Your task to perform on an android device: visit the assistant section in the google photos Image 0: 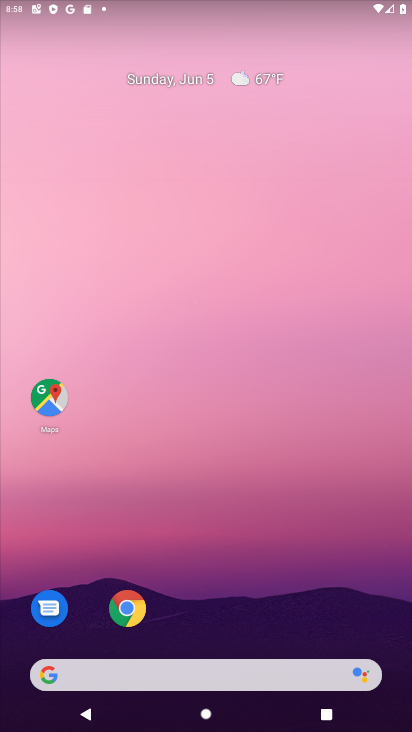
Step 0: drag from (10, 628) to (127, 387)
Your task to perform on an android device: visit the assistant section in the google photos Image 1: 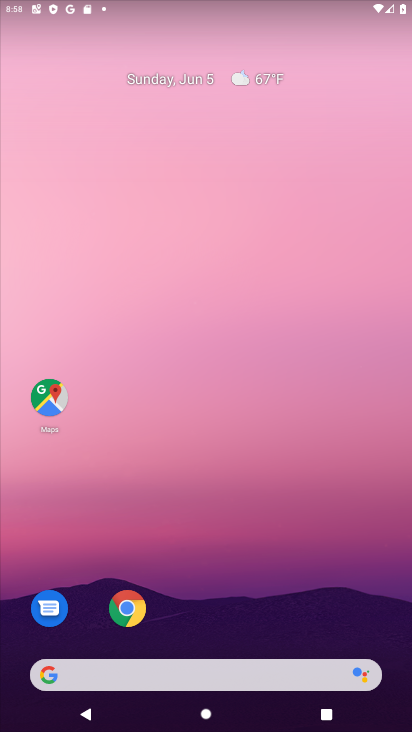
Step 1: drag from (24, 554) to (221, 213)
Your task to perform on an android device: visit the assistant section in the google photos Image 2: 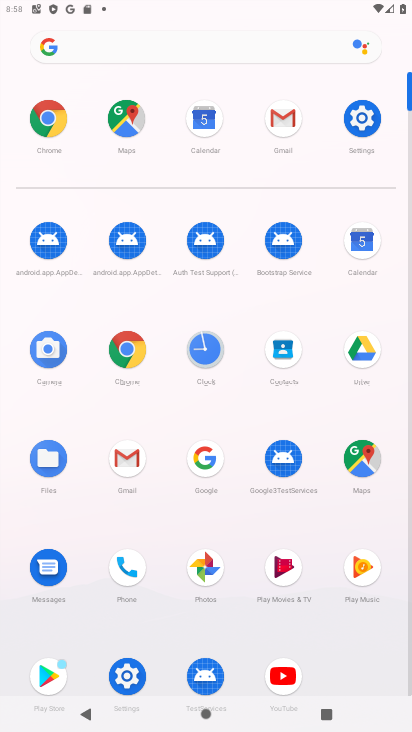
Step 2: click (216, 566)
Your task to perform on an android device: visit the assistant section in the google photos Image 3: 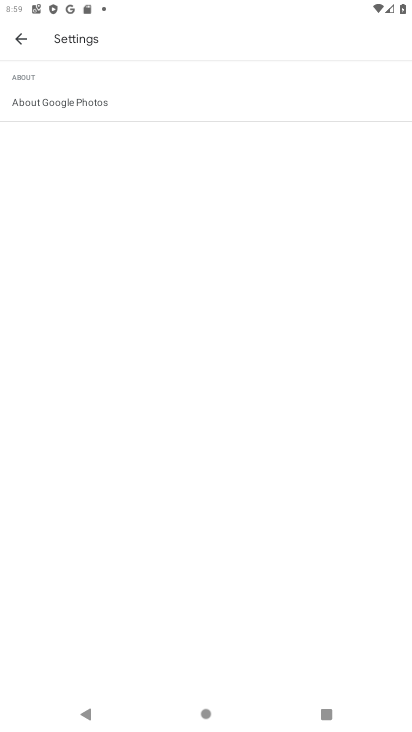
Step 3: click (20, 34)
Your task to perform on an android device: visit the assistant section in the google photos Image 4: 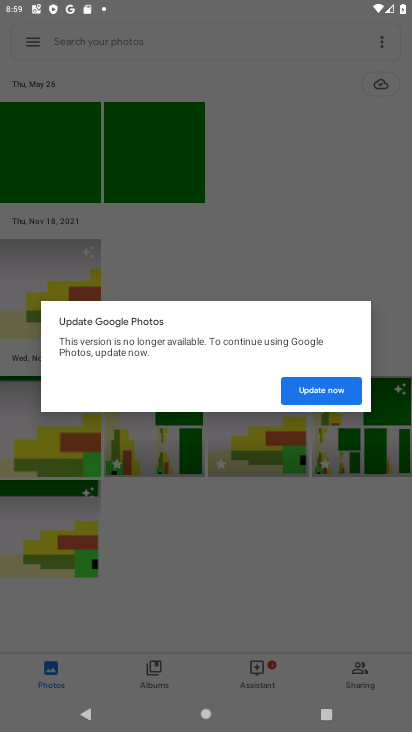
Step 4: click (294, 514)
Your task to perform on an android device: visit the assistant section in the google photos Image 5: 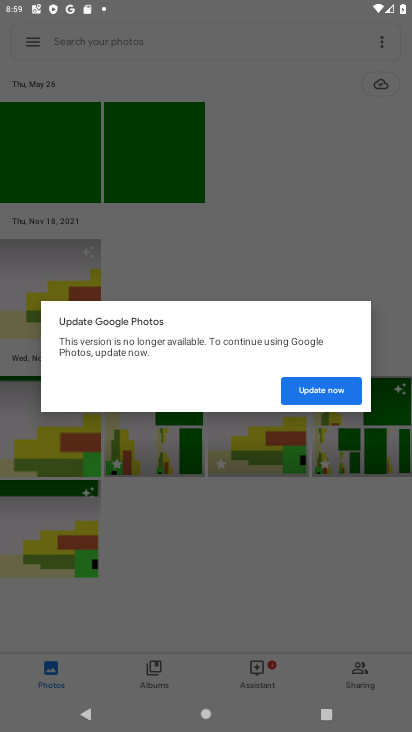
Step 5: click (286, 389)
Your task to perform on an android device: visit the assistant section in the google photos Image 6: 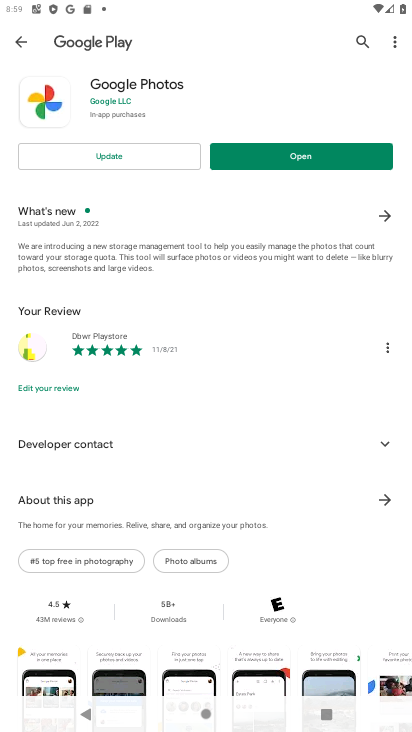
Step 6: click (321, 162)
Your task to perform on an android device: visit the assistant section in the google photos Image 7: 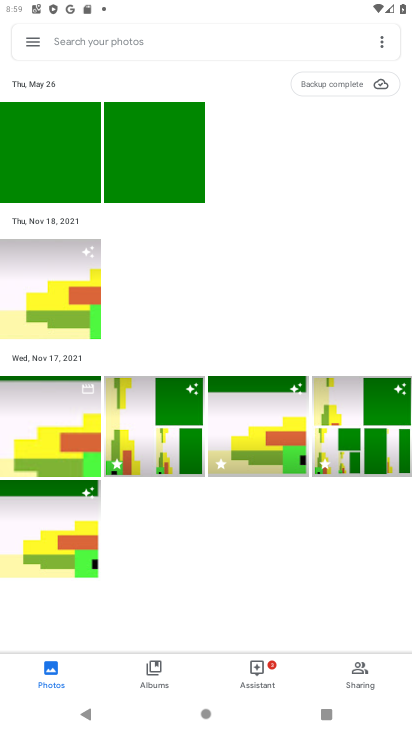
Step 7: click (252, 675)
Your task to perform on an android device: visit the assistant section in the google photos Image 8: 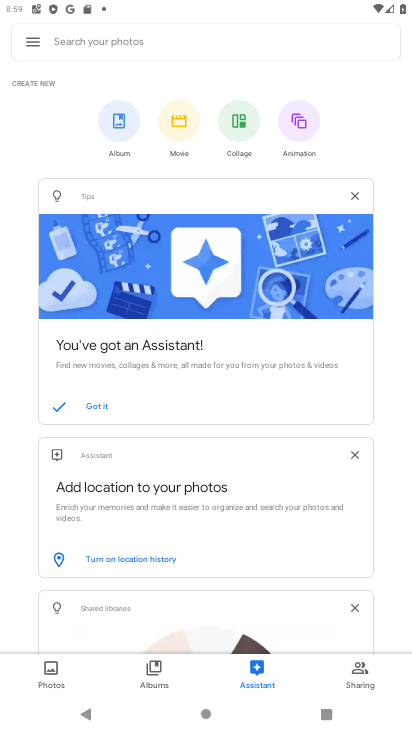
Step 8: task complete